Your task to perform on an android device: Show me productivity apps on the Play Store Image 0: 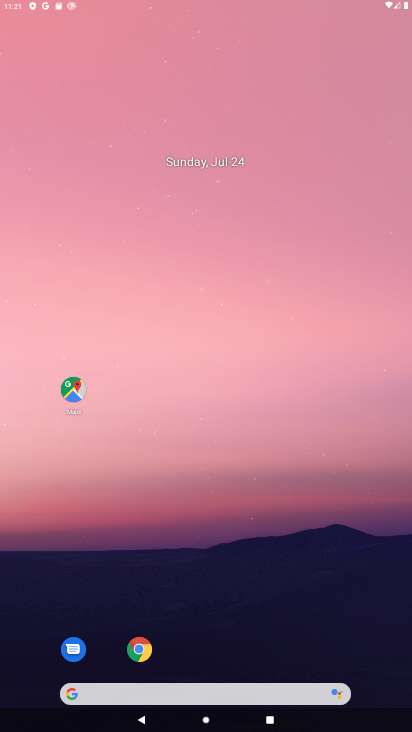
Step 0: drag from (217, 661) to (200, 0)
Your task to perform on an android device: Show me productivity apps on the Play Store Image 1: 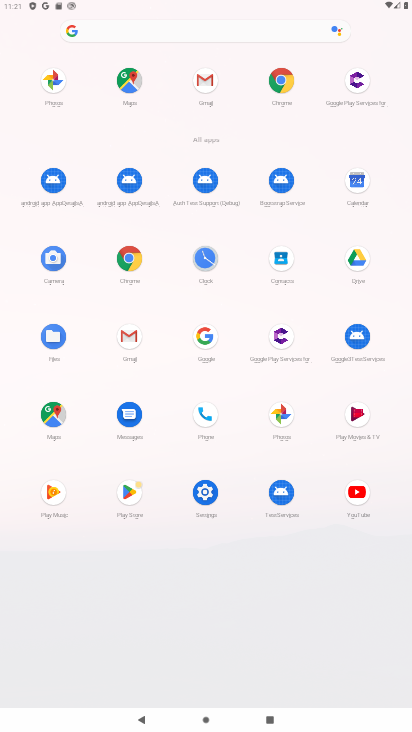
Step 1: click (125, 489)
Your task to perform on an android device: Show me productivity apps on the Play Store Image 2: 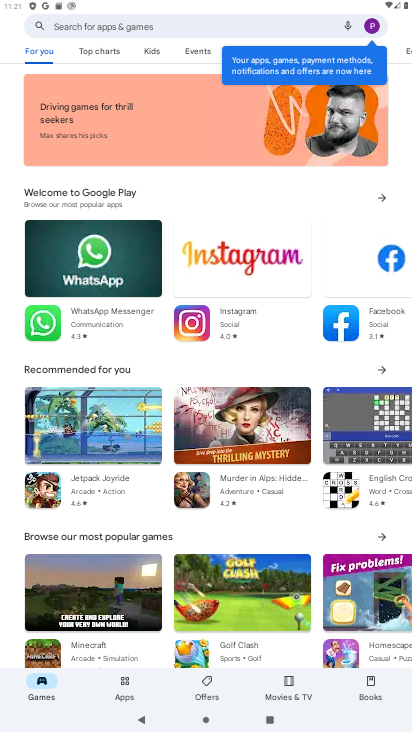
Step 2: click (370, 20)
Your task to perform on an android device: Show me productivity apps on the Play Store Image 3: 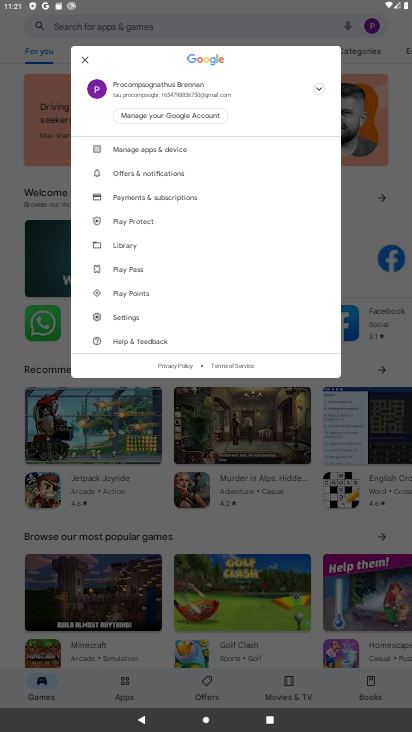
Step 3: click (362, 95)
Your task to perform on an android device: Show me productivity apps on the Play Store Image 4: 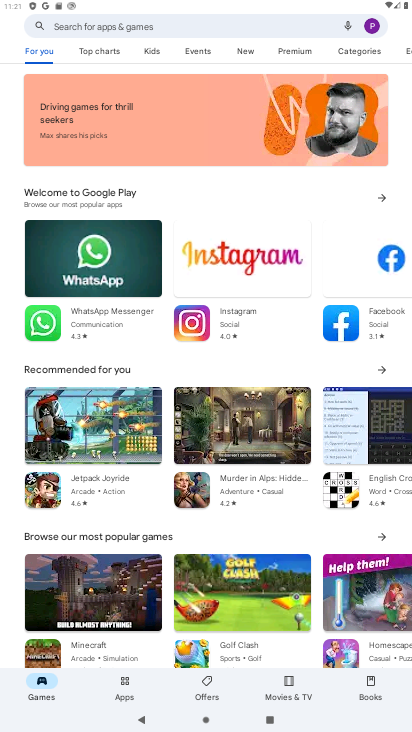
Step 4: click (355, 50)
Your task to perform on an android device: Show me productivity apps on the Play Store Image 5: 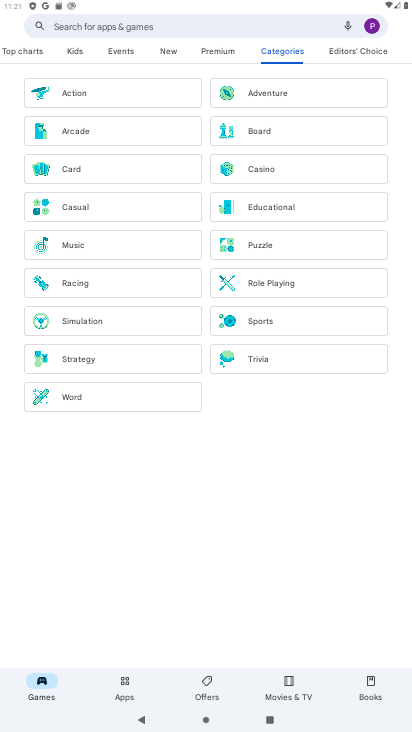
Step 5: click (119, 694)
Your task to perform on an android device: Show me productivity apps on the Play Store Image 6: 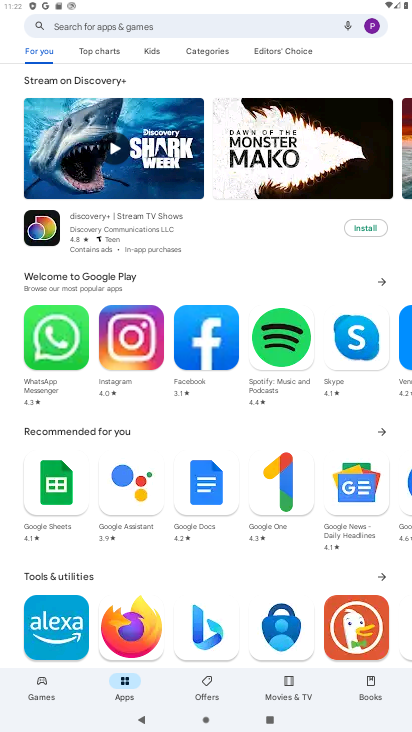
Step 6: click (206, 50)
Your task to perform on an android device: Show me productivity apps on the Play Store Image 7: 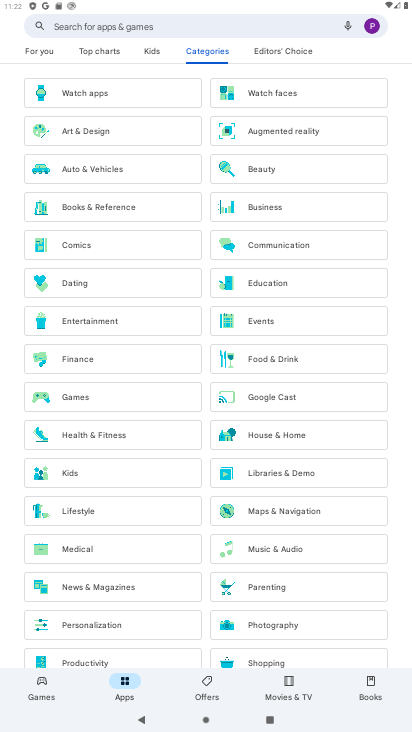
Step 7: click (132, 654)
Your task to perform on an android device: Show me productivity apps on the Play Store Image 8: 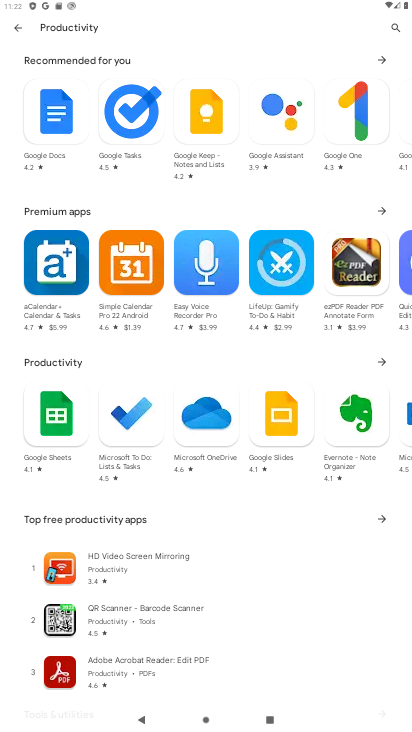
Step 8: drag from (243, 624) to (238, 170)
Your task to perform on an android device: Show me productivity apps on the Play Store Image 9: 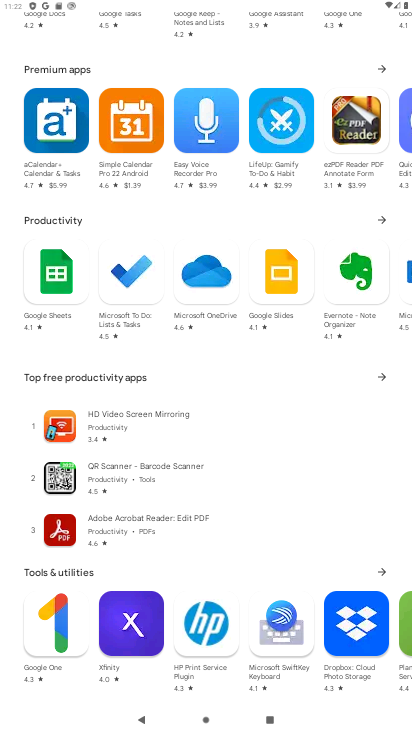
Step 9: click (379, 221)
Your task to perform on an android device: Show me productivity apps on the Play Store Image 10: 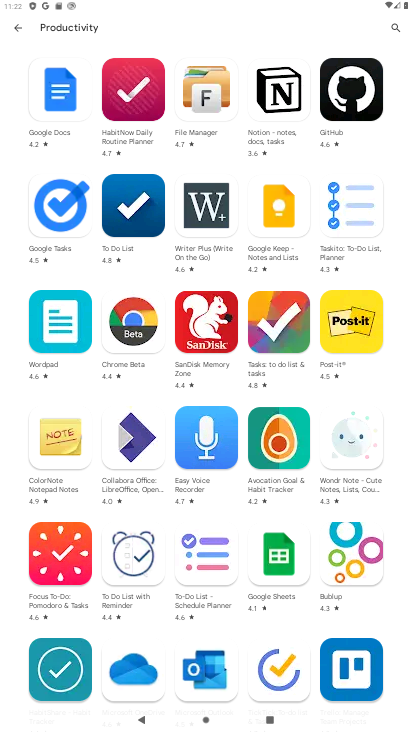
Step 10: task complete